Your task to perform on an android device: open app "Duolingo: language lessons" (install if not already installed), go to login, and select forgot password Image 0: 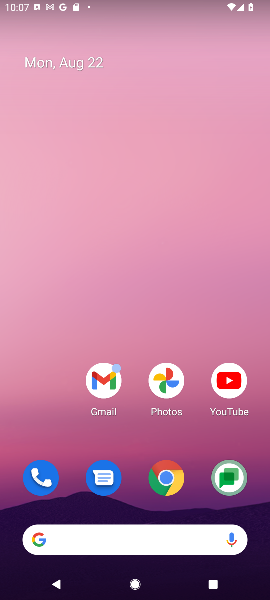
Step 0: drag from (137, 508) to (133, 52)
Your task to perform on an android device: open app "Duolingo: language lessons" (install if not already installed), go to login, and select forgot password Image 1: 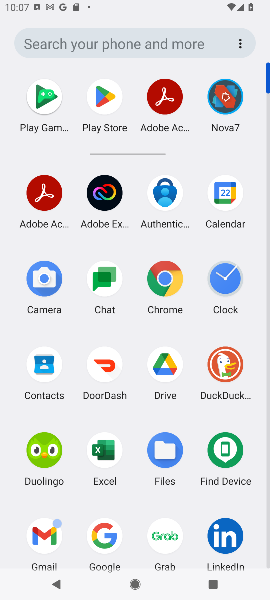
Step 1: click (26, 465)
Your task to perform on an android device: open app "Duolingo: language lessons" (install if not already installed), go to login, and select forgot password Image 2: 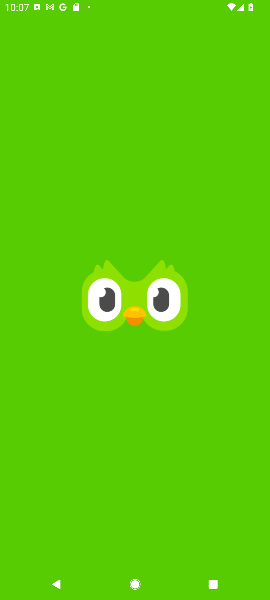
Step 2: task complete